Your task to perform on an android device: turn on showing notifications on the lock screen Image 0: 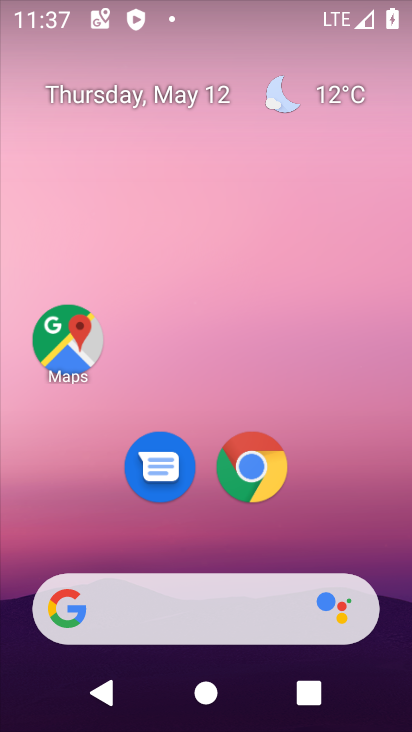
Step 0: drag from (329, 549) to (276, 3)
Your task to perform on an android device: turn on showing notifications on the lock screen Image 1: 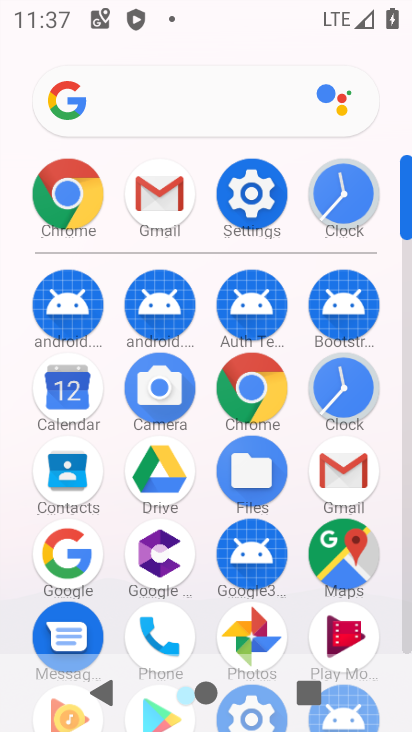
Step 1: drag from (5, 485) to (5, 162)
Your task to perform on an android device: turn on showing notifications on the lock screen Image 2: 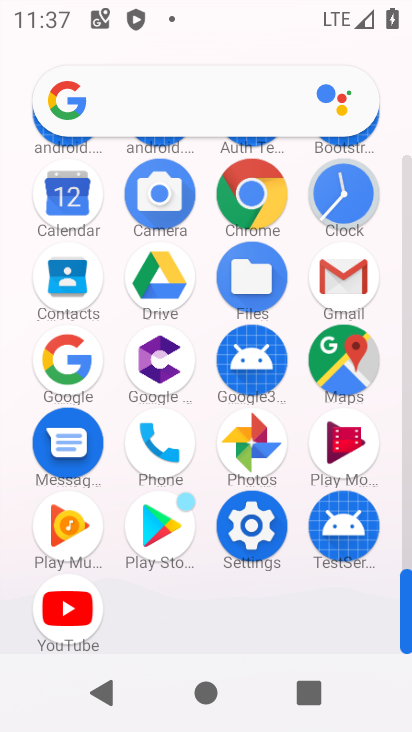
Step 2: click (246, 519)
Your task to perform on an android device: turn on showing notifications on the lock screen Image 3: 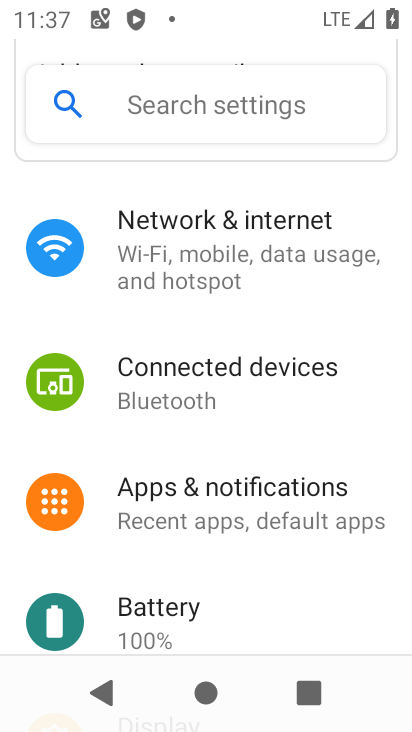
Step 3: click (237, 508)
Your task to perform on an android device: turn on showing notifications on the lock screen Image 4: 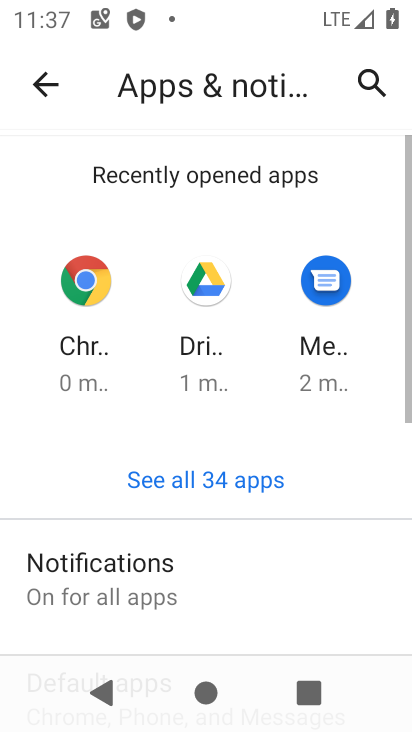
Step 4: drag from (233, 576) to (218, 213)
Your task to perform on an android device: turn on showing notifications on the lock screen Image 5: 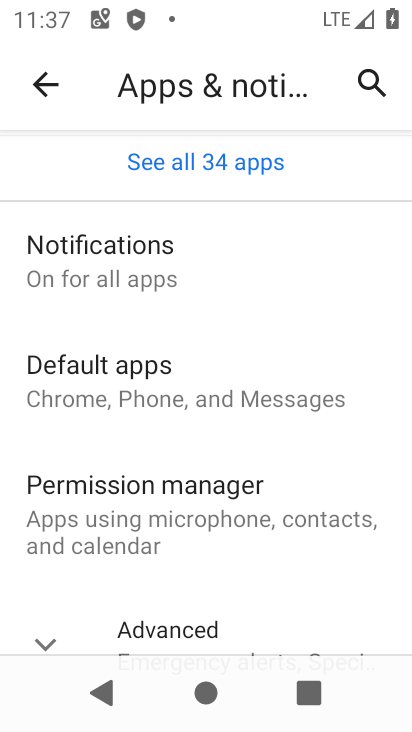
Step 5: click (185, 246)
Your task to perform on an android device: turn on showing notifications on the lock screen Image 6: 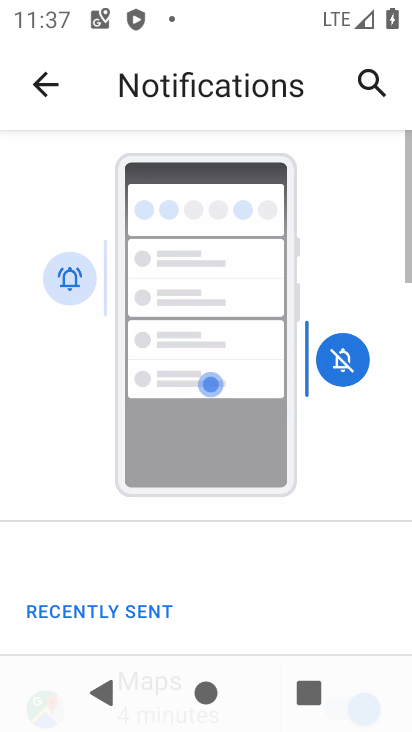
Step 6: drag from (200, 545) to (209, 159)
Your task to perform on an android device: turn on showing notifications on the lock screen Image 7: 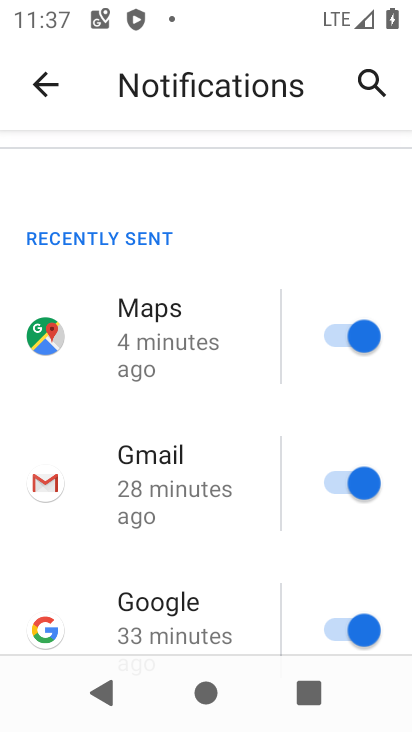
Step 7: drag from (178, 537) to (197, 173)
Your task to perform on an android device: turn on showing notifications on the lock screen Image 8: 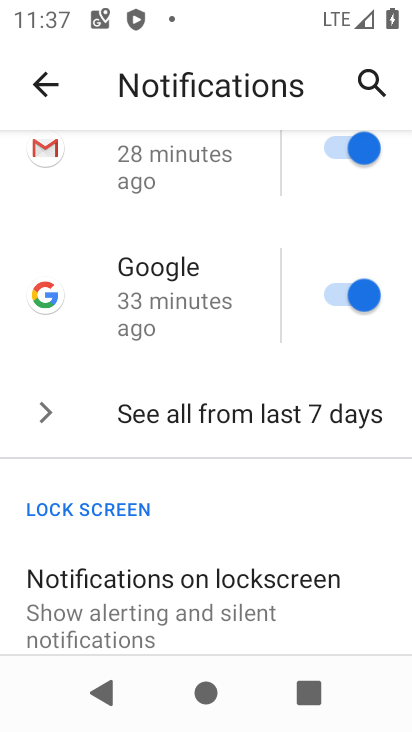
Step 8: drag from (228, 508) to (212, 178)
Your task to perform on an android device: turn on showing notifications on the lock screen Image 9: 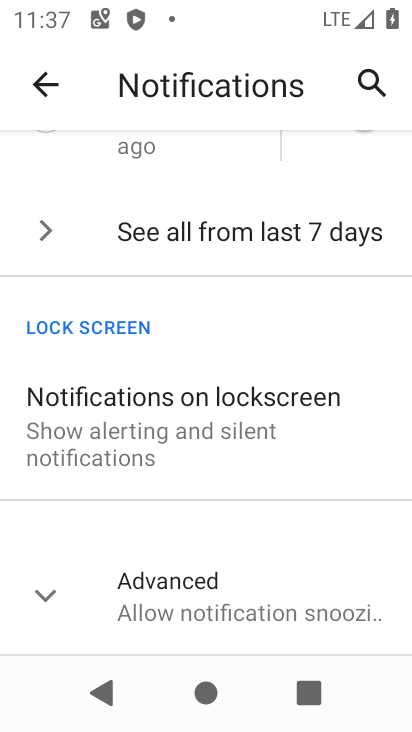
Step 9: click (49, 606)
Your task to perform on an android device: turn on showing notifications on the lock screen Image 10: 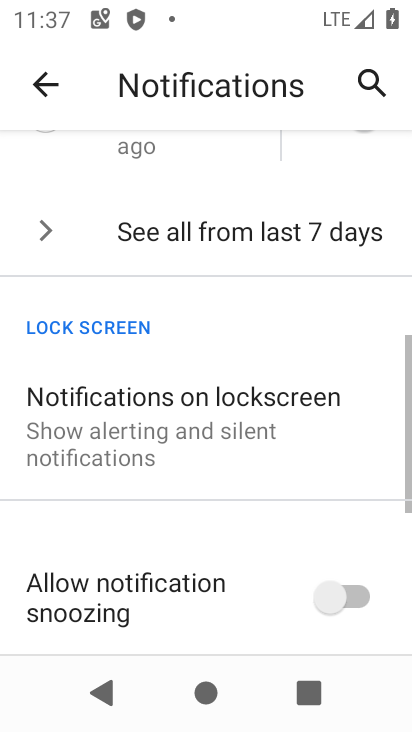
Step 10: task complete